Your task to perform on an android device: Go to CNN.com Image 0: 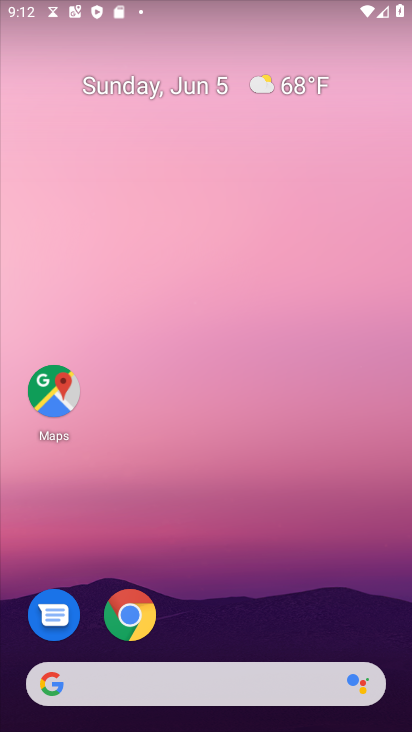
Step 0: click (142, 621)
Your task to perform on an android device: Go to CNN.com Image 1: 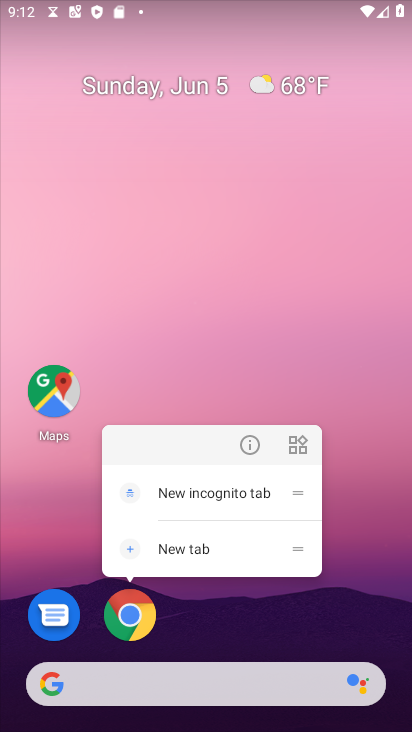
Step 1: click (136, 611)
Your task to perform on an android device: Go to CNN.com Image 2: 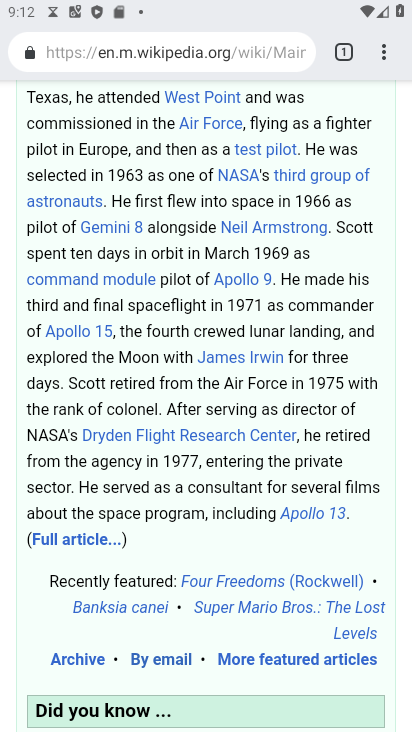
Step 2: click (360, 76)
Your task to perform on an android device: Go to CNN.com Image 3: 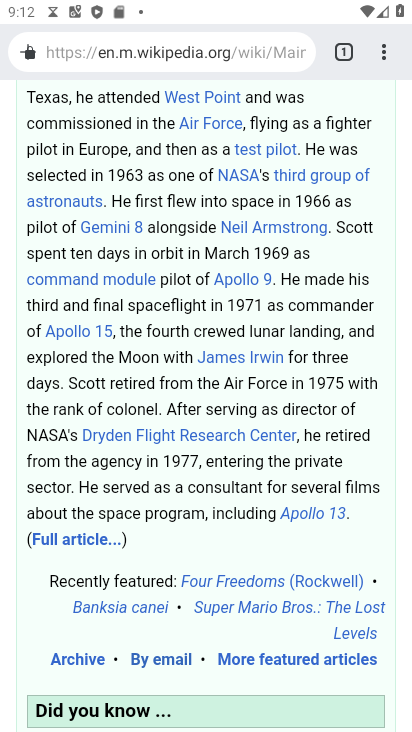
Step 3: click (355, 53)
Your task to perform on an android device: Go to CNN.com Image 4: 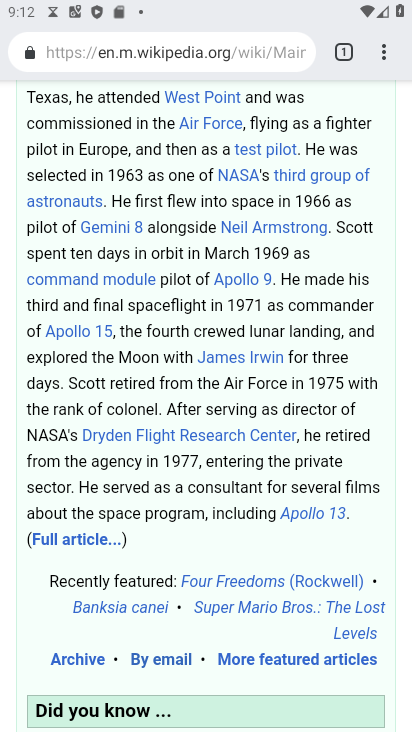
Step 4: click (341, 48)
Your task to perform on an android device: Go to CNN.com Image 5: 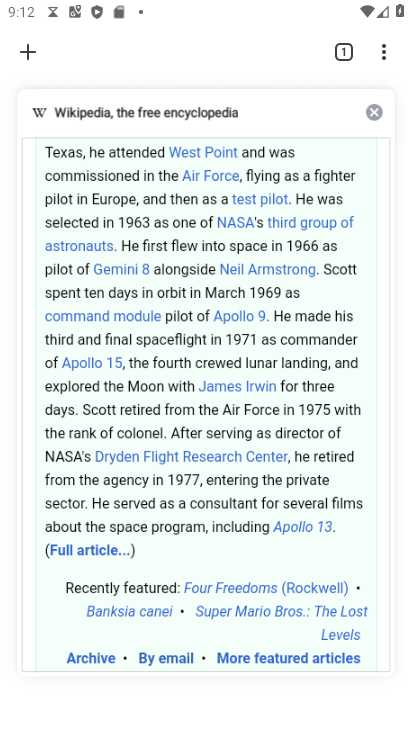
Step 5: click (374, 114)
Your task to perform on an android device: Go to CNN.com Image 6: 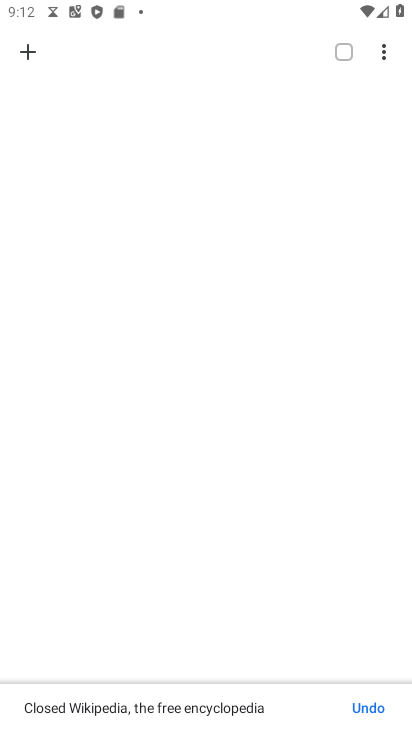
Step 6: click (36, 50)
Your task to perform on an android device: Go to CNN.com Image 7: 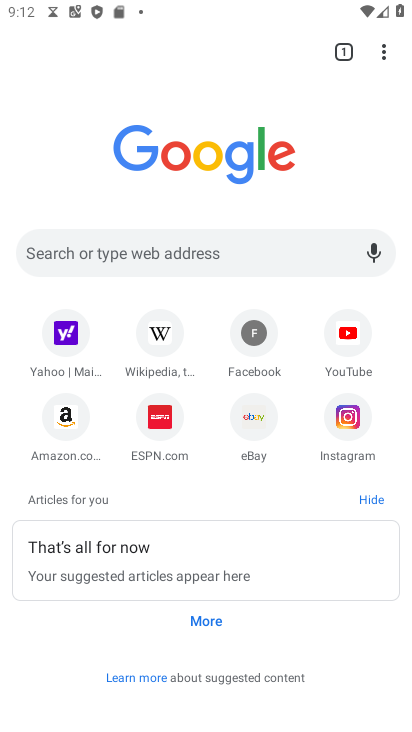
Step 7: click (236, 250)
Your task to perform on an android device: Go to CNN.com Image 8: 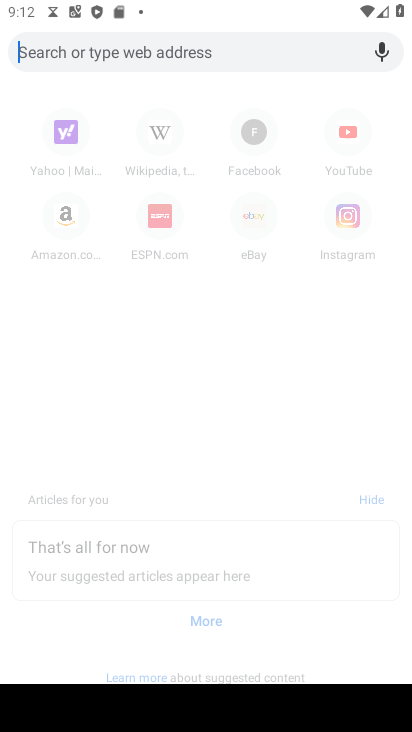
Step 8: type "cnn"
Your task to perform on an android device: Go to CNN.com Image 9: 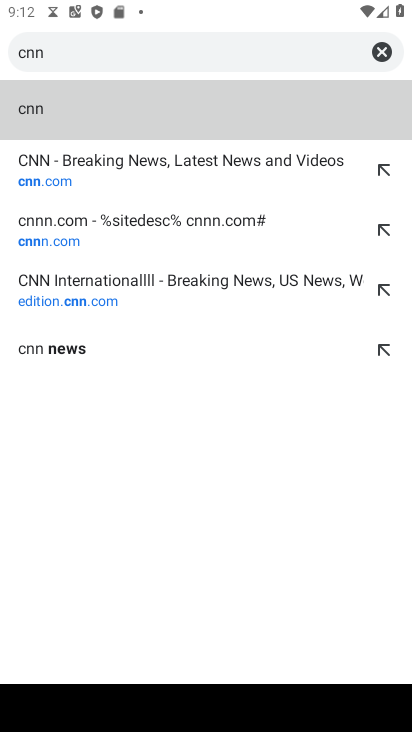
Step 9: click (120, 178)
Your task to perform on an android device: Go to CNN.com Image 10: 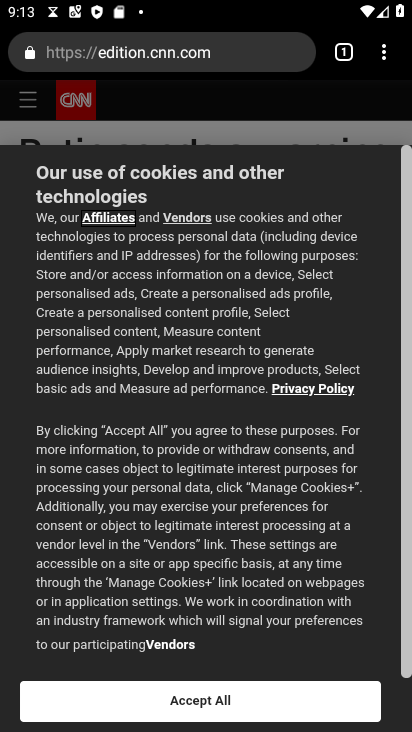
Step 10: task complete